Your task to perform on an android device: set the stopwatch Image 0: 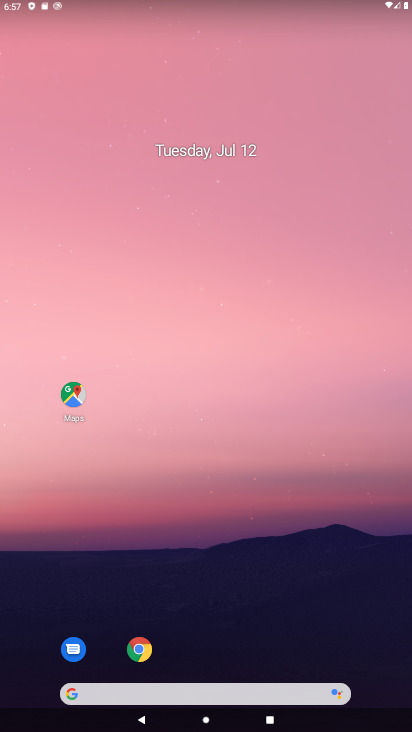
Step 0: drag from (204, 692) to (214, 170)
Your task to perform on an android device: set the stopwatch Image 1: 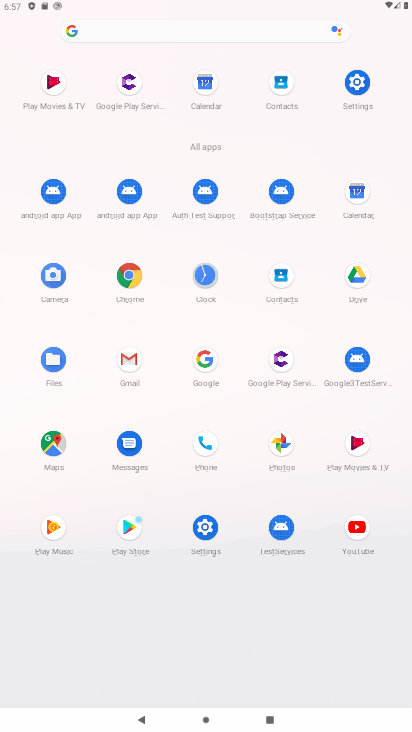
Step 1: click (207, 277)
Your task to perform on an android device: set the stopwatch Image 2: 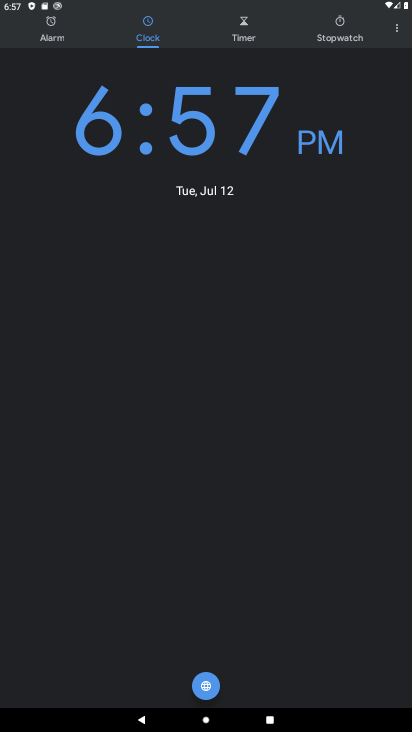
Step 2: click (344, 27)
Your task to perform on an android device: set the stopwatch Image 3: 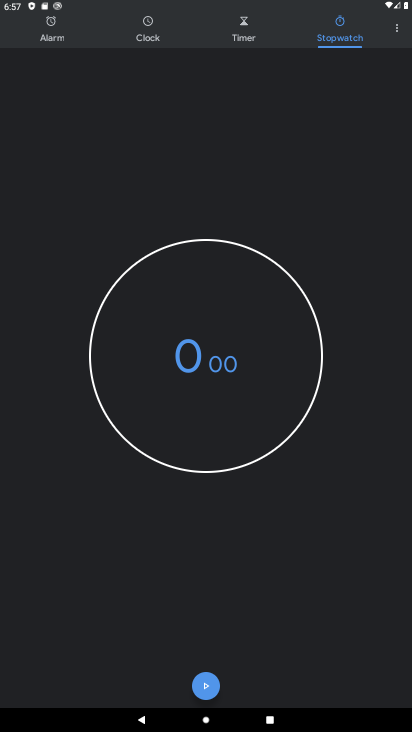
Step 3: click (229, 406)
Your task to perform on an android device: set the stopwatch Image 4: 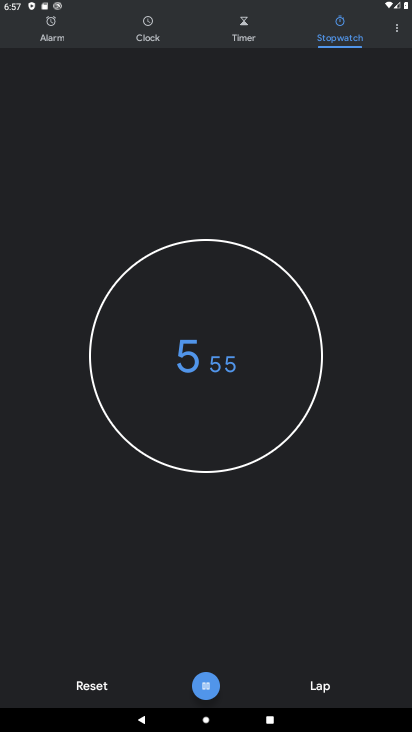
Step 4: click (240, 394)
Your task to perform on an android device: set the stopwatch Image 5: 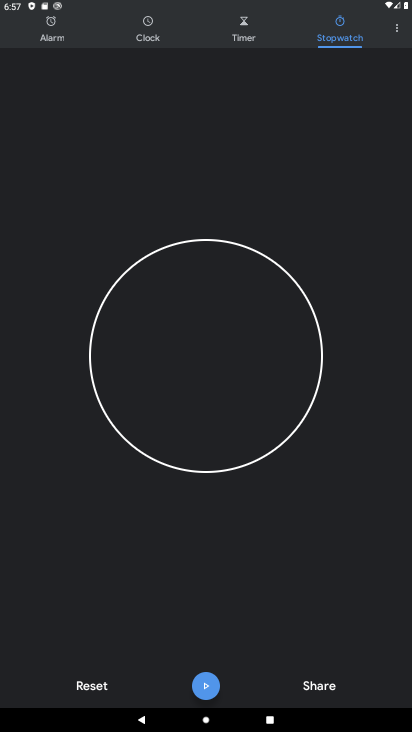
Step 5: task complete